Your task to perform on an android device: change the clock display to show seconds Image 0: 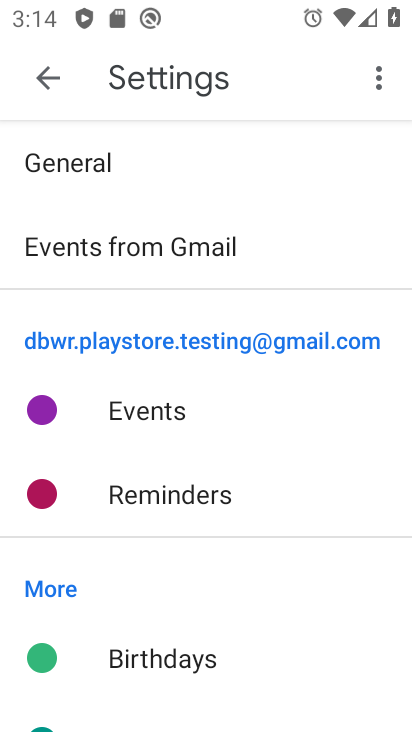
Step 0: press home button
Your task to perform on an android device: change the clock display to show seconds Image 1: 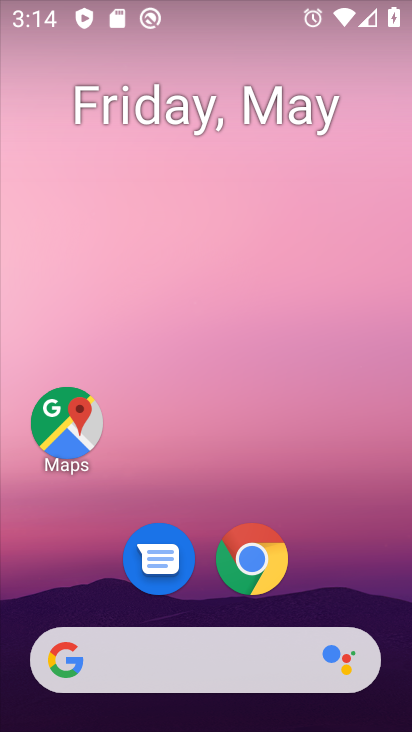
Step 1: drag from (364, 576) to (285, 257)
Your task to perform on an android device: change the clock display to show seconds Image 2: 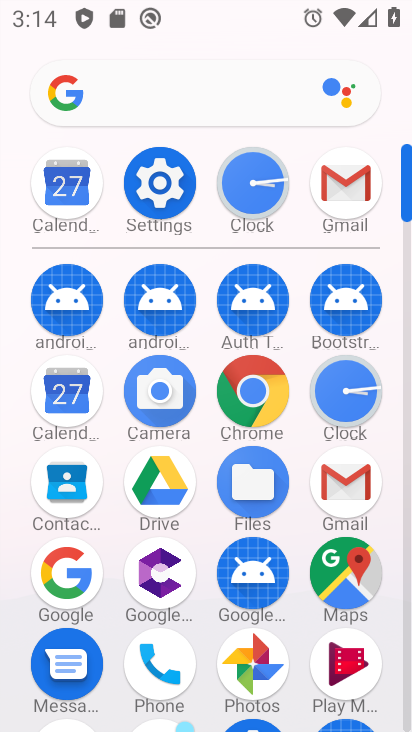
Step 2: click (252, 197)
Your task to perform on an android device: change the clock display to show seconds Image 3: 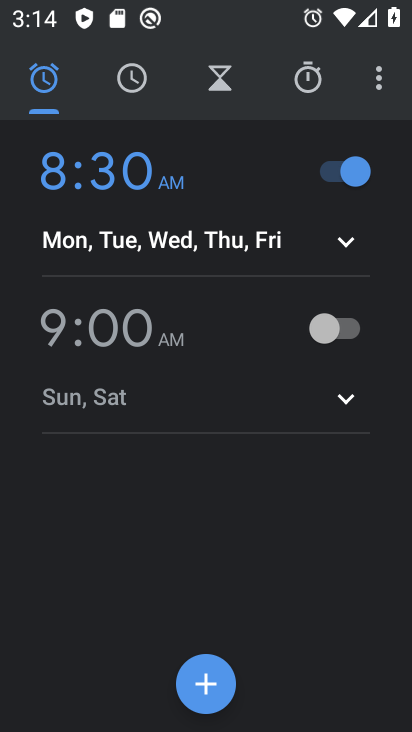
Step 3: click (388, 91)
Your task to perform on an android device: change the clock display to show seconds Image 4: 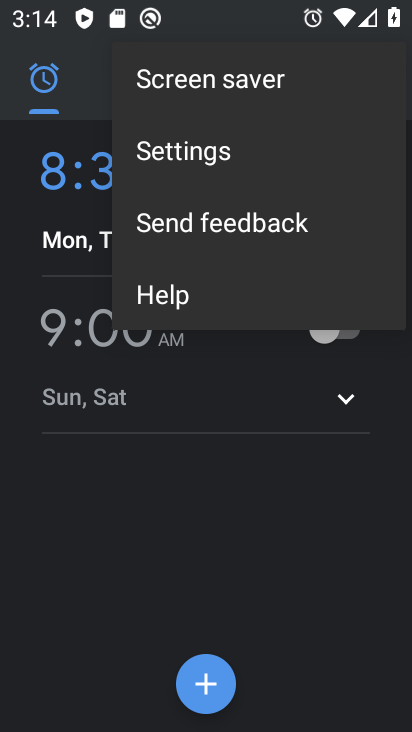
Step 4: click (227, 141)
Your task to perform on an android device: change the clock display to show seconds Image 5: 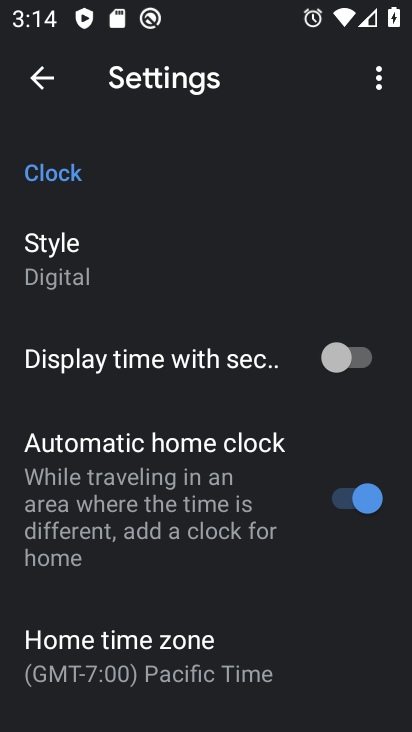
Step 5: click (326, 342)
Your task to perform on an android device: change the clock display to show seconds Image 6: 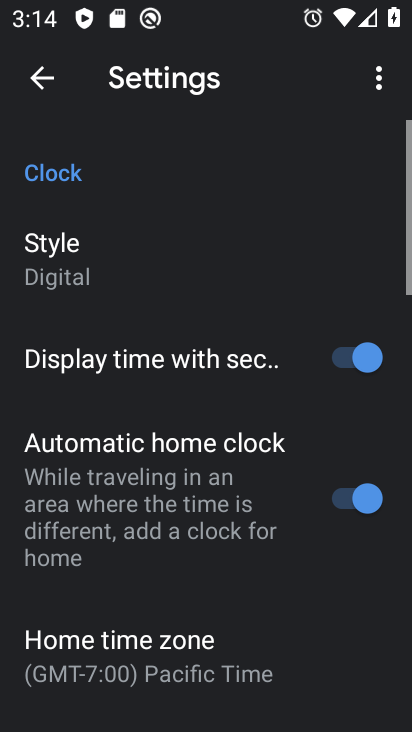
Step 6: task complete